Your task to perform on an android device: Go to Reddit.com Image 0: 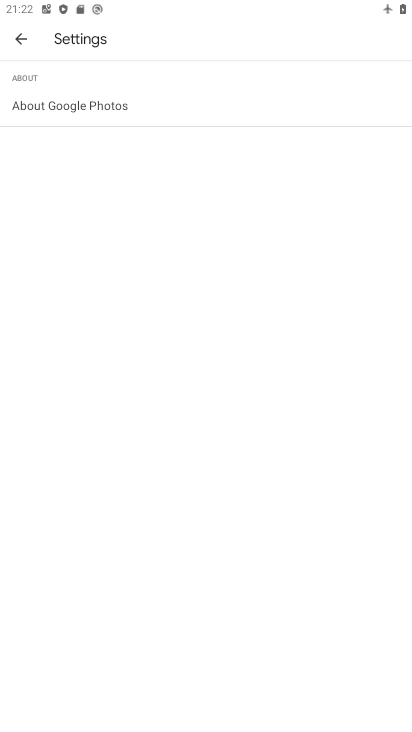
Step 0: press home button
Your task to perform on an android device: Go to Reddit.com Image 1: 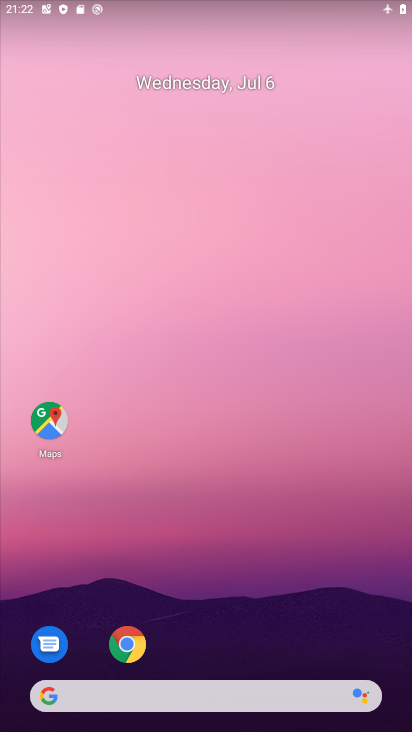
Step 1: click (116, 639)
Your task to perform on an android device: Go to Reddit.com Image 2: 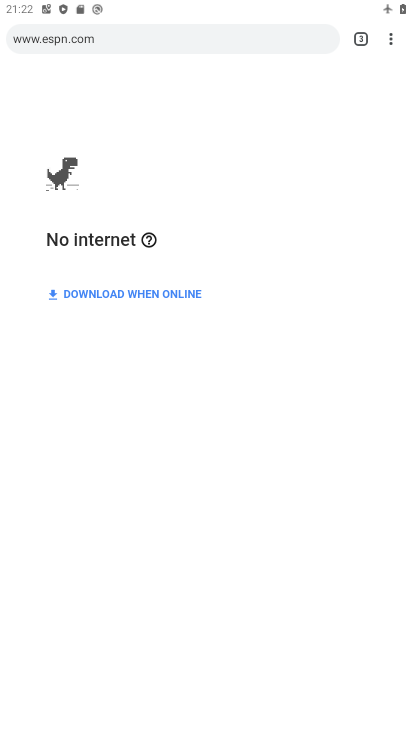
Step 2: click (361, 34)
Your task to perform on an android device: Go to Reddit.com Image 3: 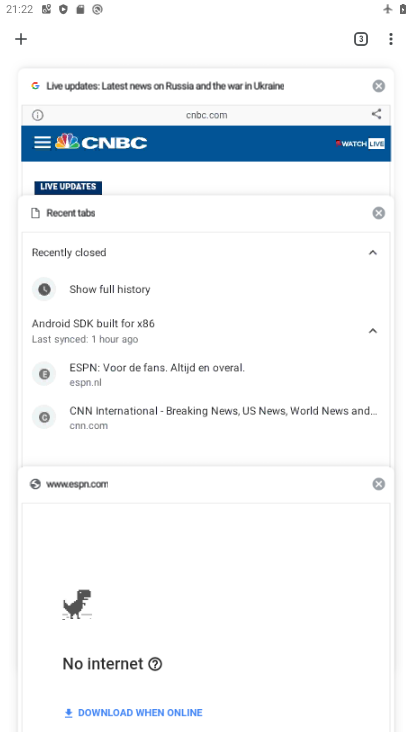
Step 3: click (23, 40)
Your task to perform on an android device: Go to Reddit.com Image 4: 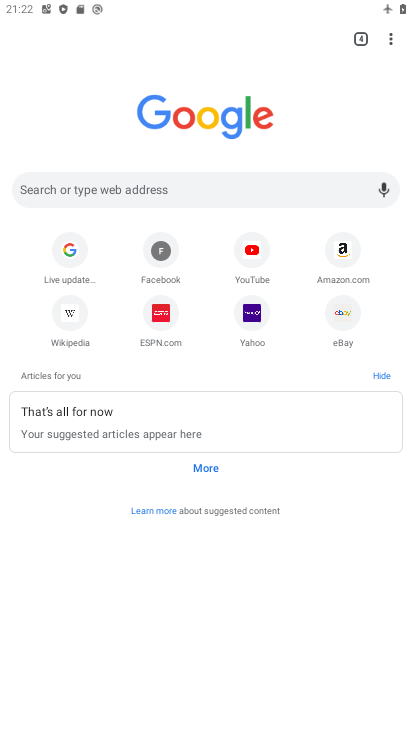
Step 4: click (181, 195)
Your task to perform on an android device: Go to Reddit.com Image 5: 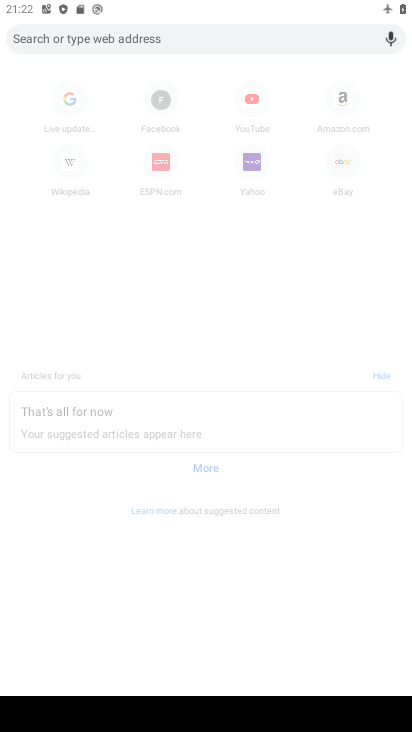
Step 5: type "Reddit.com"
Your task to perform on an android device: Go to Reddit.com Image 6: 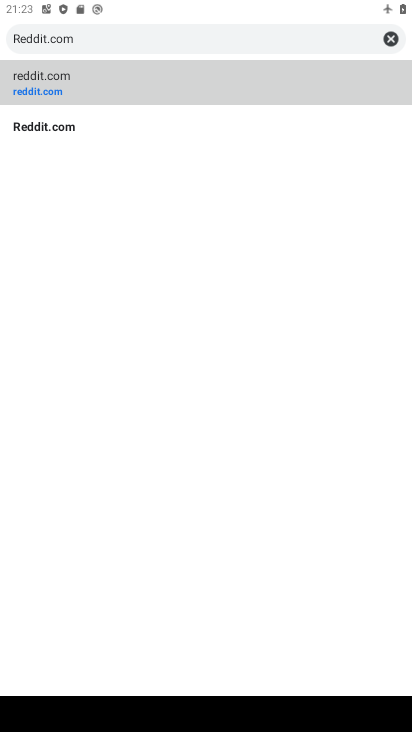
Step 6: click (91, 91)
Your task to perform on an android device: Go to Reddit.com Image 7: 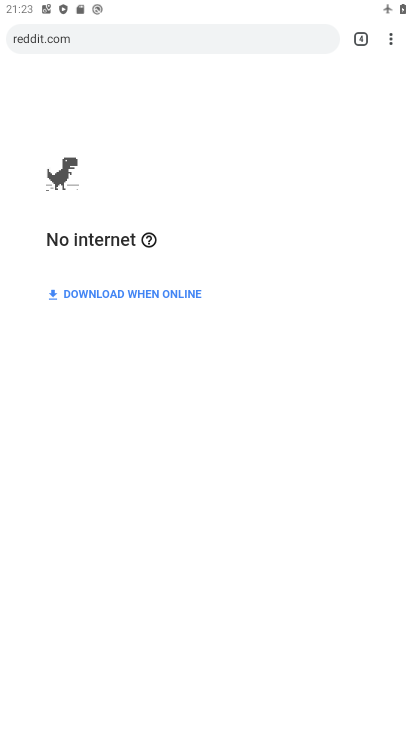
Step 7: task complete